Your task to perform on an android device: set an alarm Image 0: 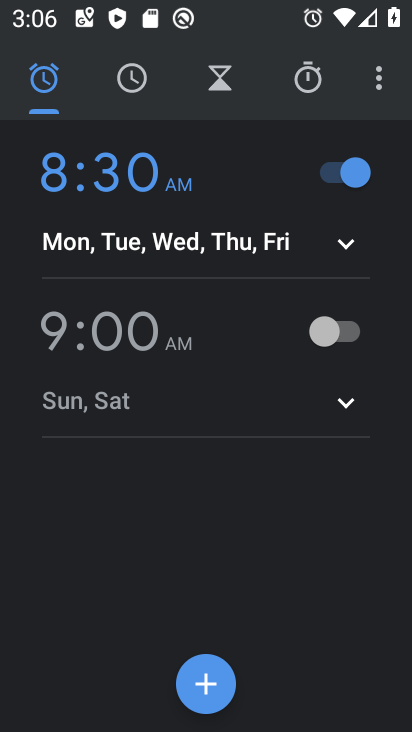
Step 0: click (326, 331)
Your task to perform on an android device: set an alarm Image 1: 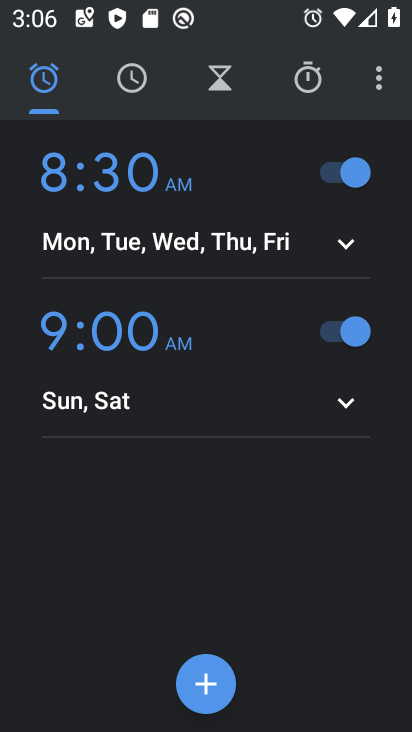
Step 1: task complete